Your task to perform on an android device: Add macbook to the cart on bestbuy.com Image 0: 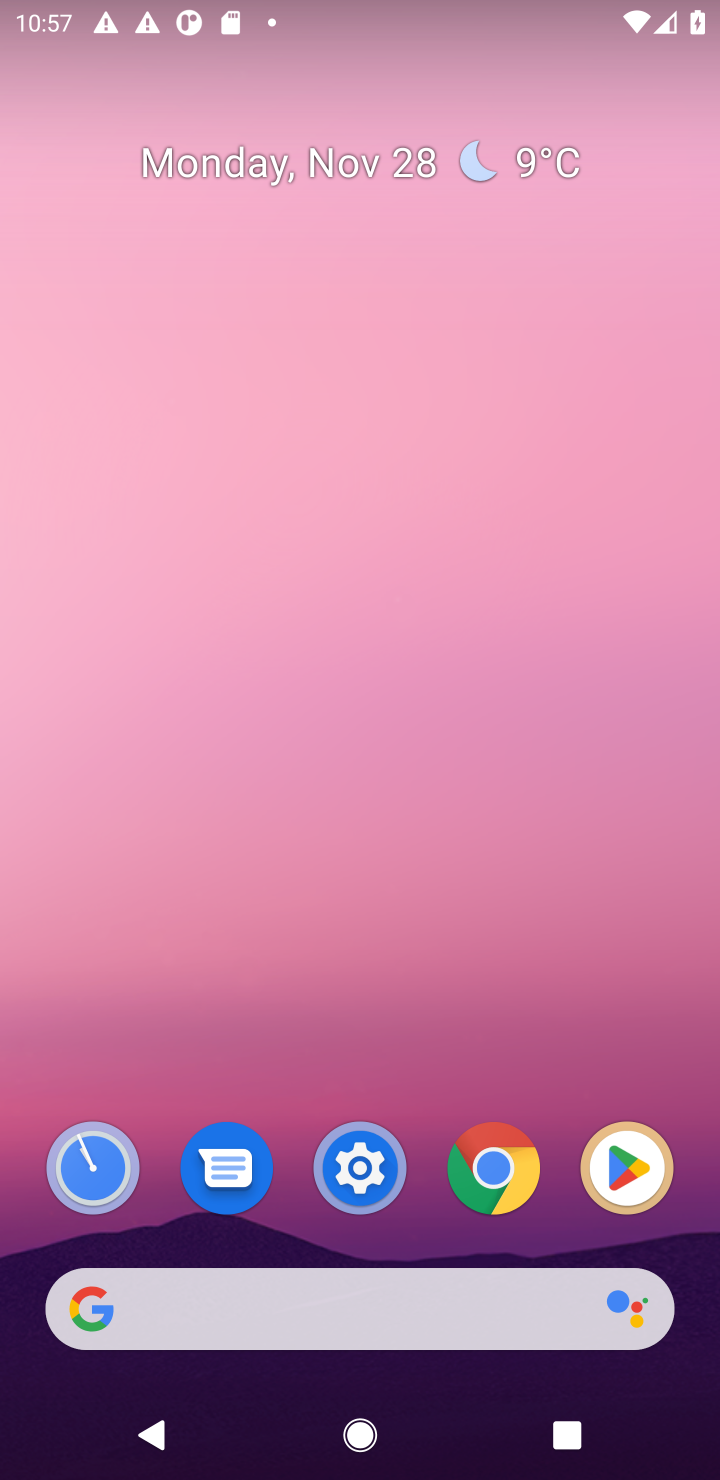
Step 0: click (416, 1279)
Your task to perform on an android device: Add macbook to the cart on bestbuy.com Image 1: 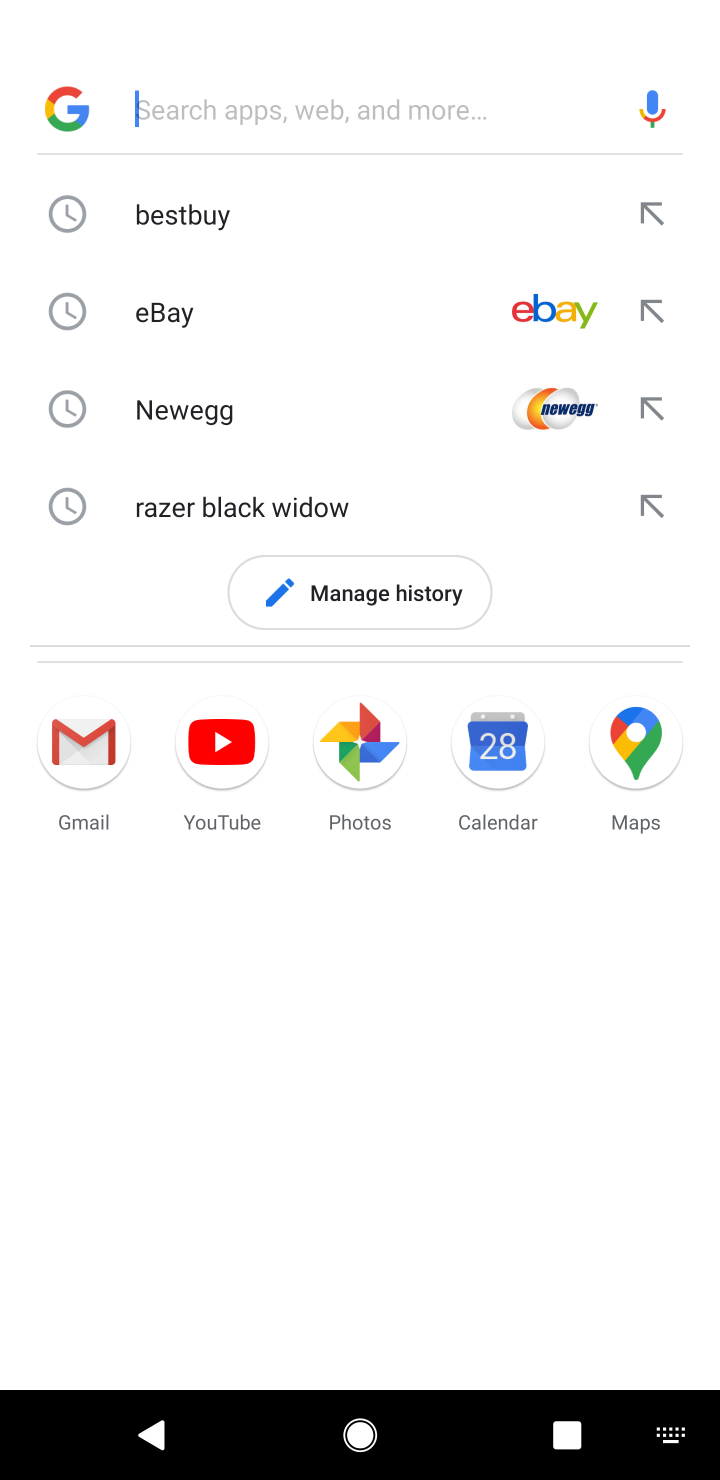
Step 1: type "bestbuy.com"
Your task to perform on an android device: Add macbook to the cart on bestbuy.com Image 2: 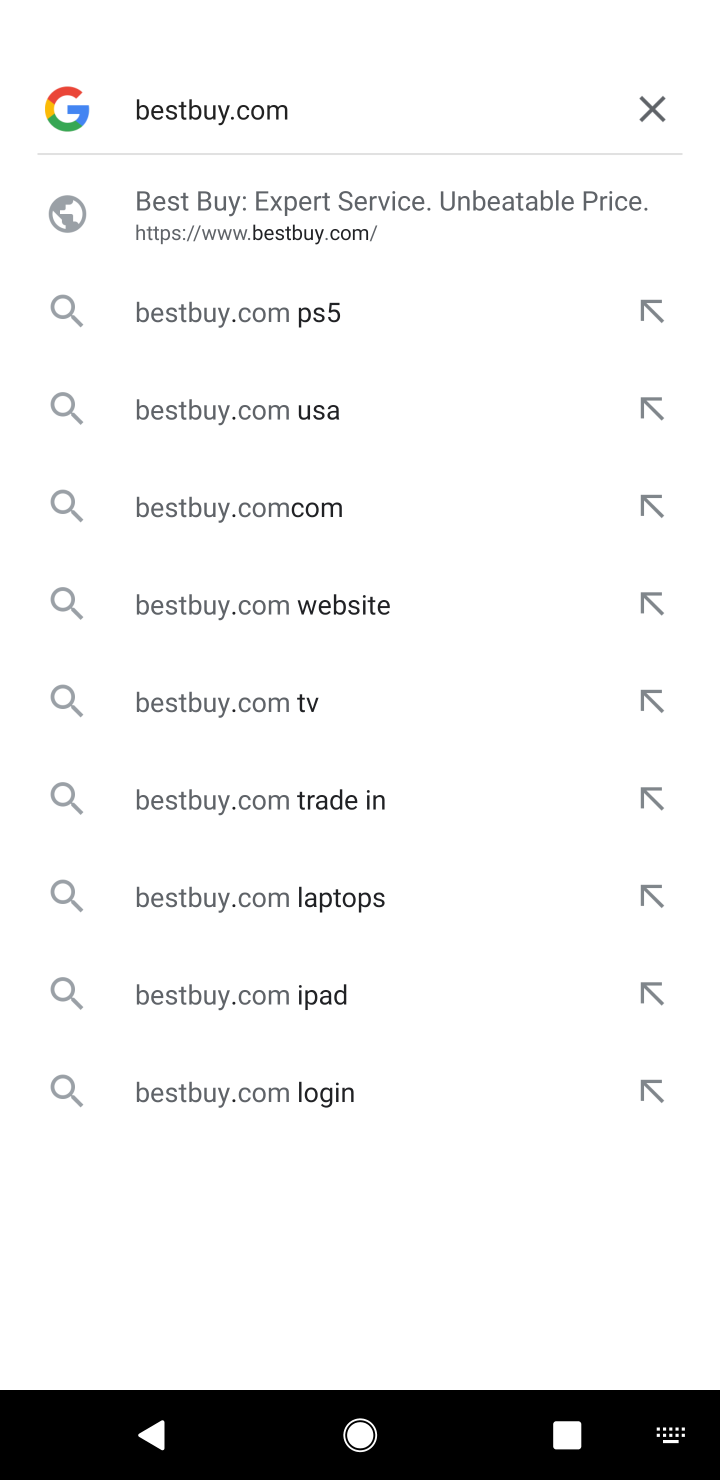
Step 2: click (270, 222)
Your task to perform on an android device: Add macbook to the cart on bestbuy.com Image 3: 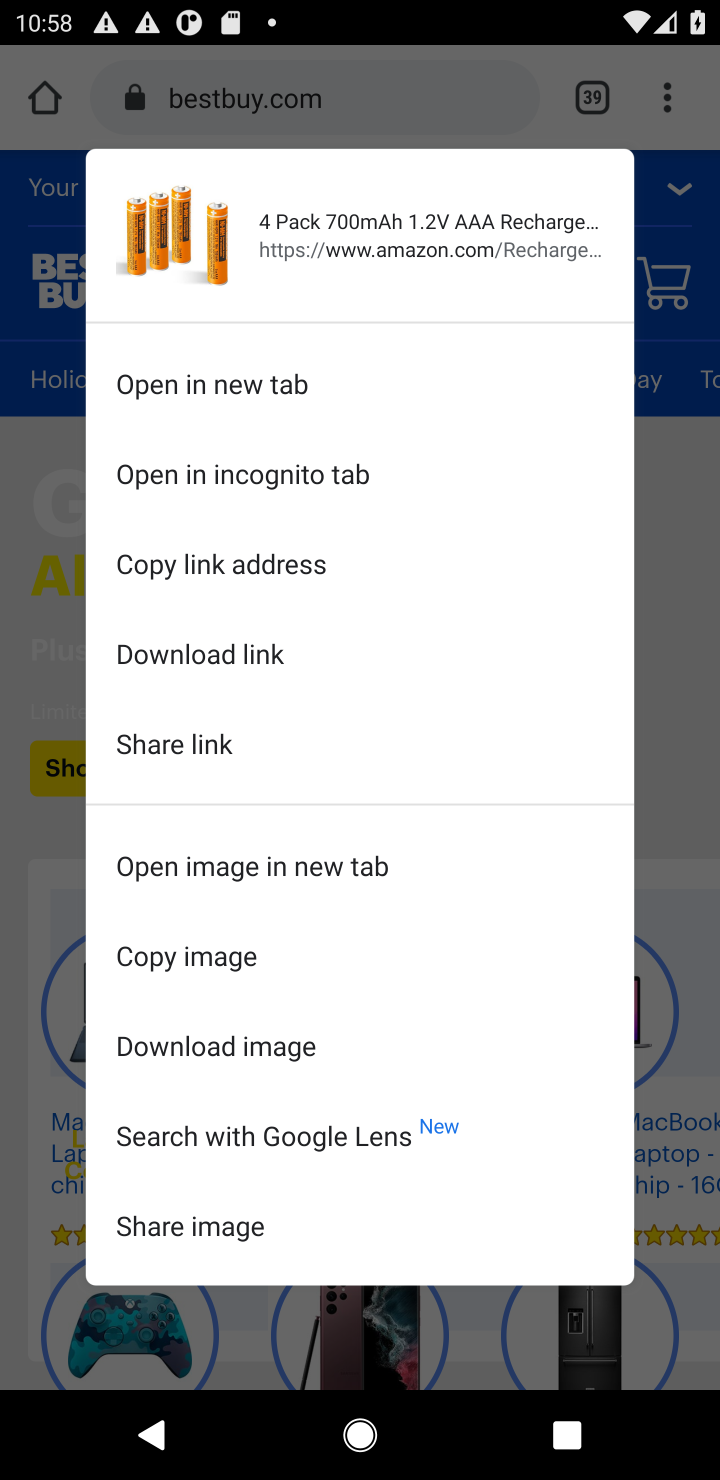
Step 3: task complete